Your task to perform on an android device: turn on showing notifications on the lock screen Image 0: 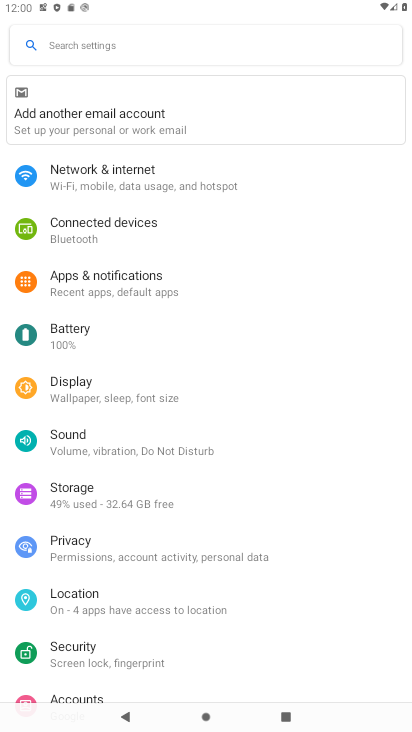
Step 0: click (159, 346)
Your task to perform on an android device: turn on showing notifications on the lock screen Image 1: 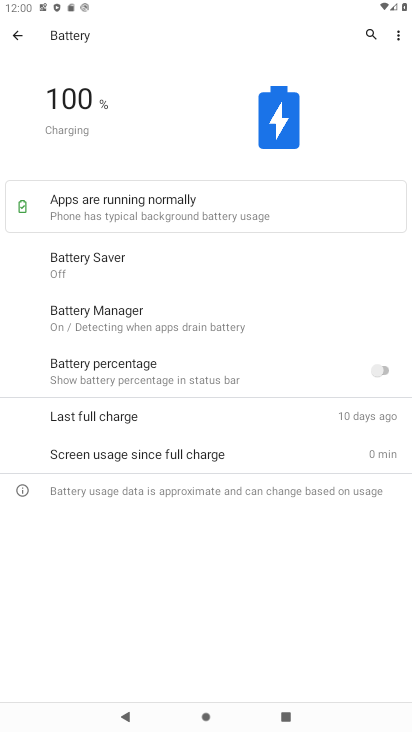
Step 1: click (19, 37)
Your task to perform on an android device: turn on showing notifications on the lock screen Image 2: 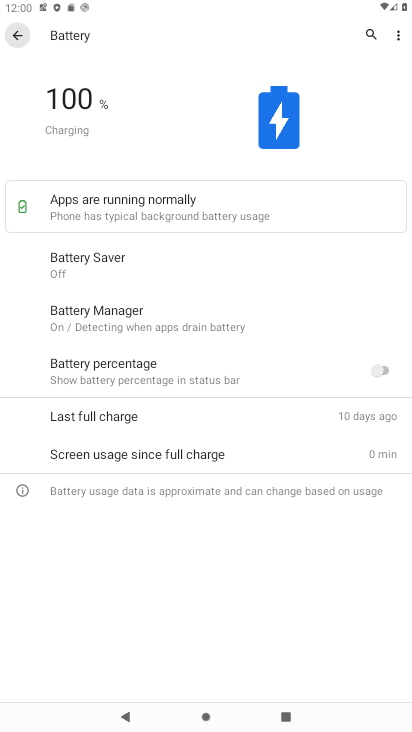
Step 2: click (20, 36)
Your task to perform on an android device: turn on showing notifications on the lock screen Image 3: 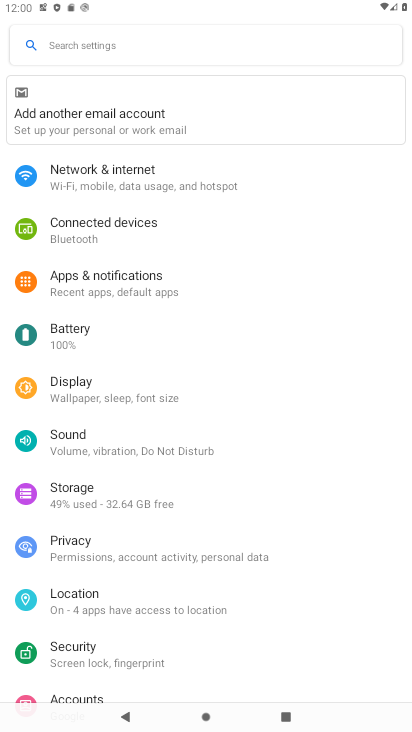
Step 3: drag from (91, 385) to (92, 322)
Your task to perform on an android device: turn on showing notifications on the lock screen Image 4: 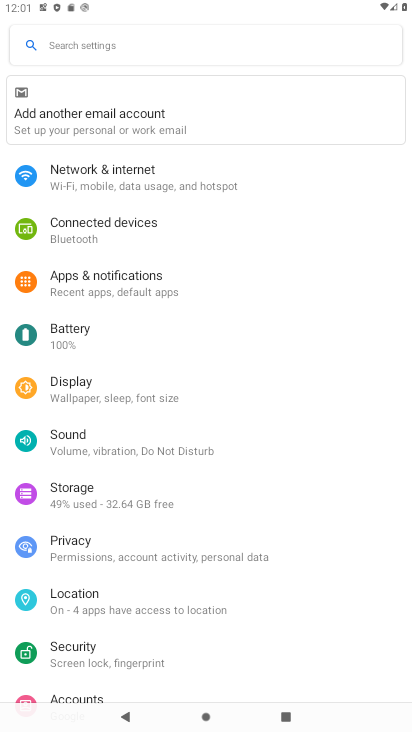
Step 4: drag from (122, 552) to (122, 248)
Your task to perform on an android device: turn on showing notifications on the lock screen Image 5: 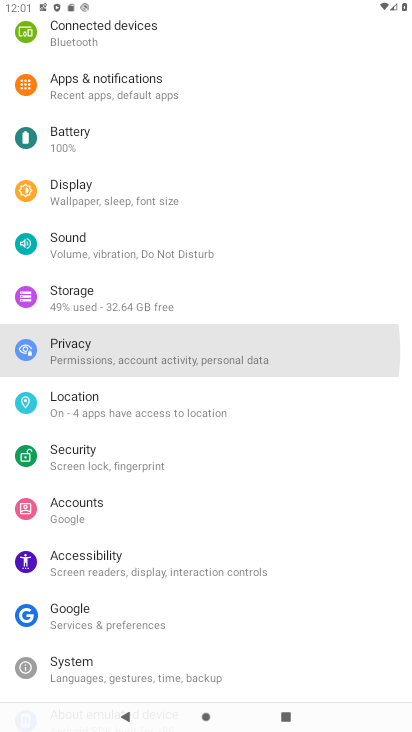
Step 5: drag from (122, 590) to (118, 352)
Your task to perform on an android device: turn on showing notifications on the lock screen Image 6: 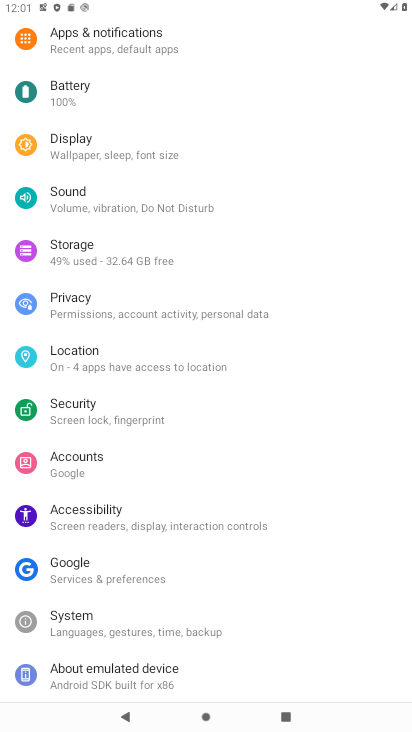
Step 6: press back button
Your task to perform on an android device: turn on showing notifications on the lock screen Image 7: 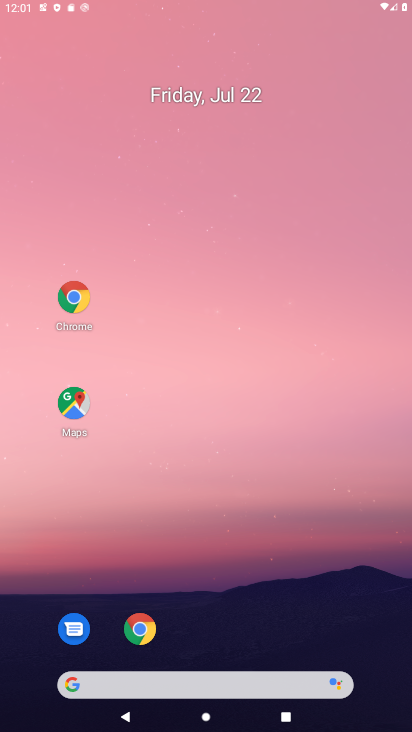
Step 7: press back button
Your task to perform on an android device: turn on showing notifications on the lock screen Image 8: 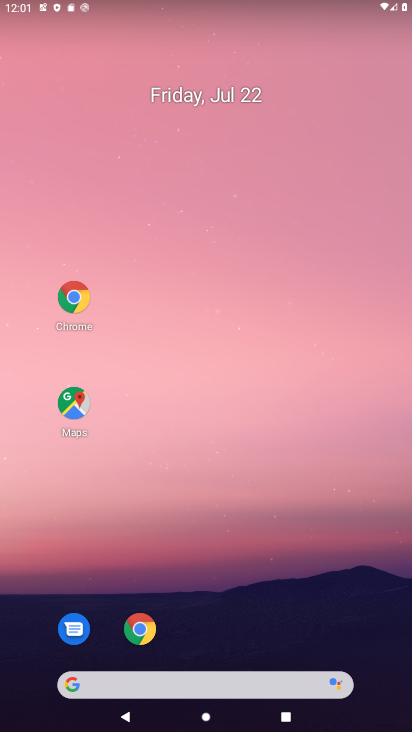
Step 8: drag from (241, 695) to (210, 172)
Your task to perform on an android device: turn on showing notifications on the lock screen Image 9: 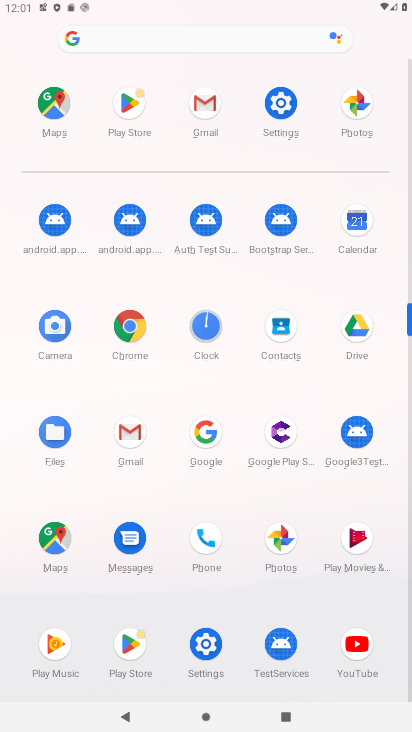
Step 9: click (207, 655)
Your task to perform on an android device: turn on showing notifications on the lock screen Image 10: 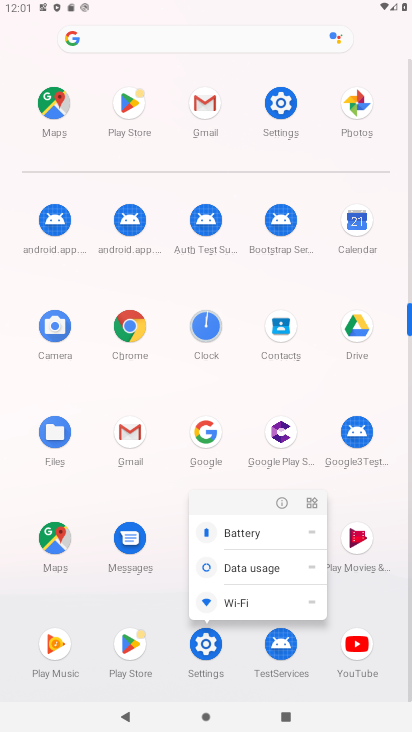
Step 10: click (207, 654)
Your task to perform on an android device: turn on showing notifications on the lock screen Image 11: 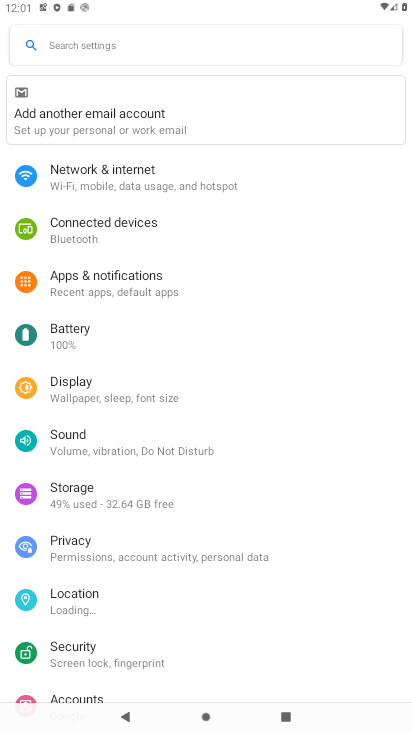
Step 11: click (112, 284)
Your task to perform on an android device: turn on showing notifications on the lock screen Image 12: 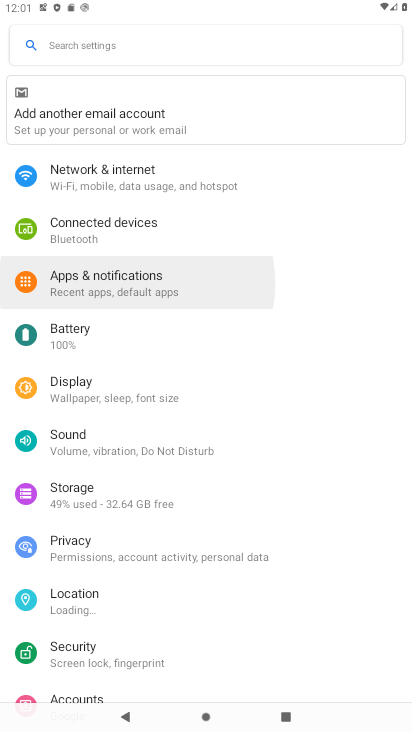
Step 12: click (113, 282)
Your task to perform on an android device: turn on showing notifications on the lock screen Image 13: 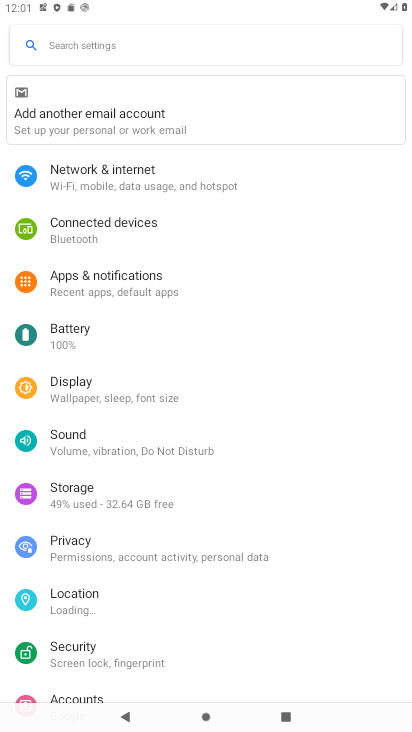
Step 13: click (114, 282)
Your task to perform on an android device: turn on showing notifications on the lock screen Image 14: 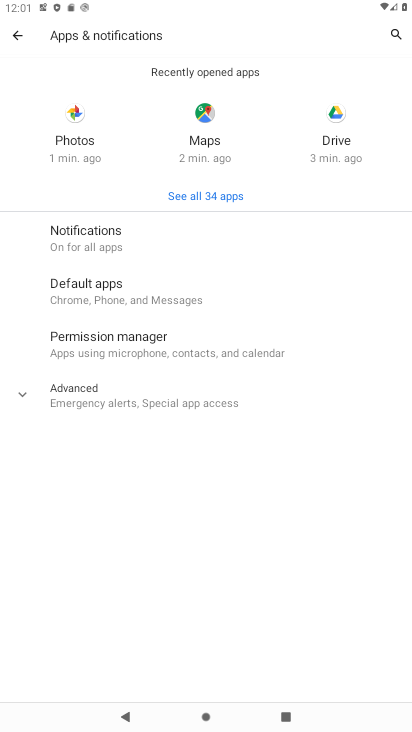
Step 14: click (82, 240)
Your task to perform on an android device: turn on showing notifications on the lock screen Image 15: 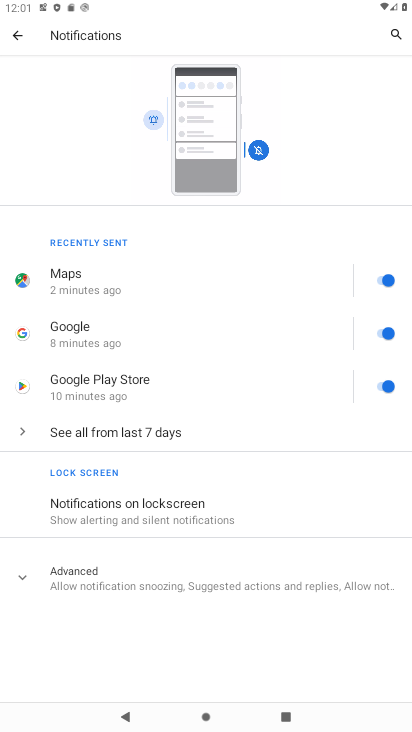
Step 15: click (155, 510)
Your task to perform on an android device: turn on showing notifications on the lock screen Image 16: 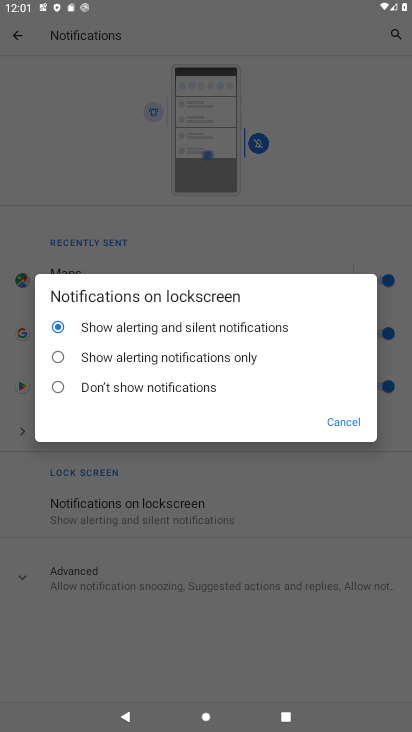
Step 16: click (335, 421)
Your task to perform on an android device: turn on showing notifications on the lock screen Image 17: 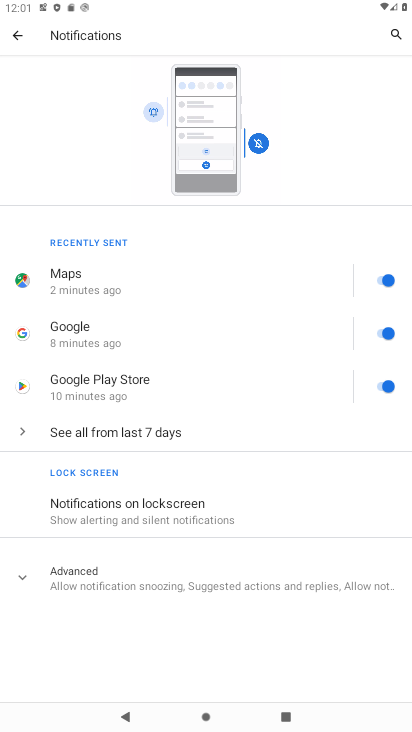
Step 17: task complete